Your task to perform on an android device: snooze an email in the gmail app Image 0: 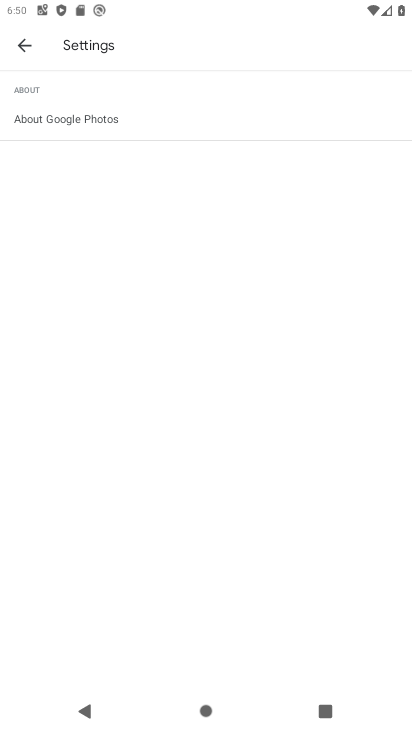
Step 0: press home button
Your task to perform on an android device: snooze an email in the gmail app Image 1: 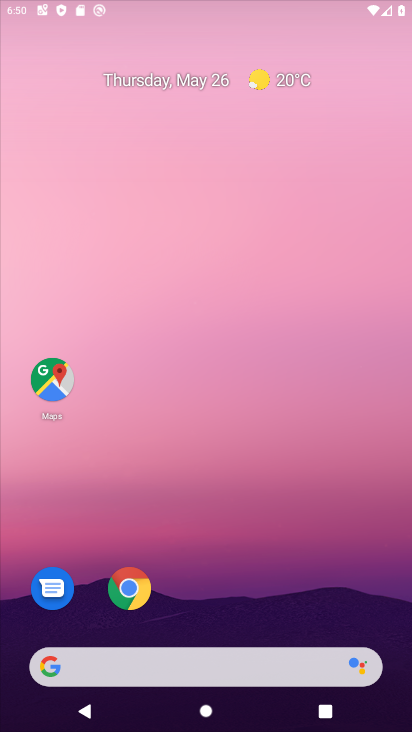
Step 1: drag from (355, 617) to (294, 10)
Your task to perform on an android device: snooze an email in the gmail app Image 2: 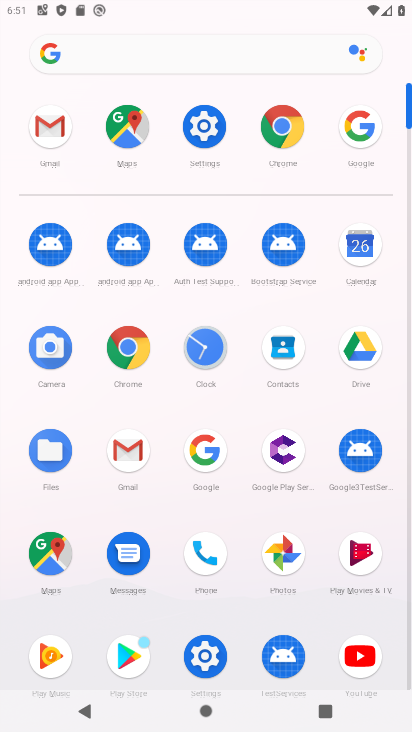
Step 2: click (130, 455)
Your task to perform on an android device: snooze an email in the gmail app Image 3: 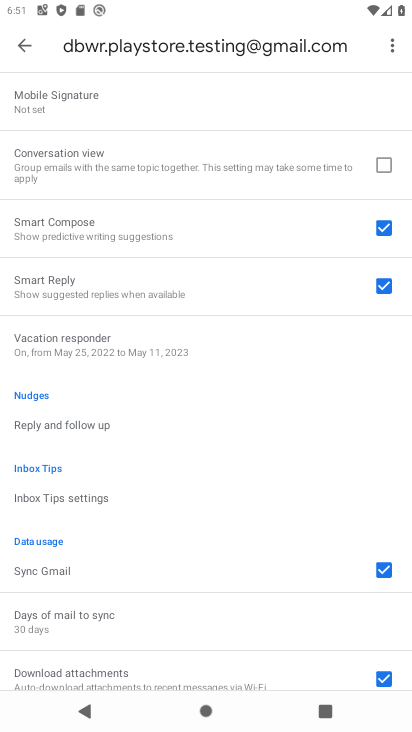
Step 3: press back button
Your task to perform on an android device: snooze an email in the gmail app Image 4: 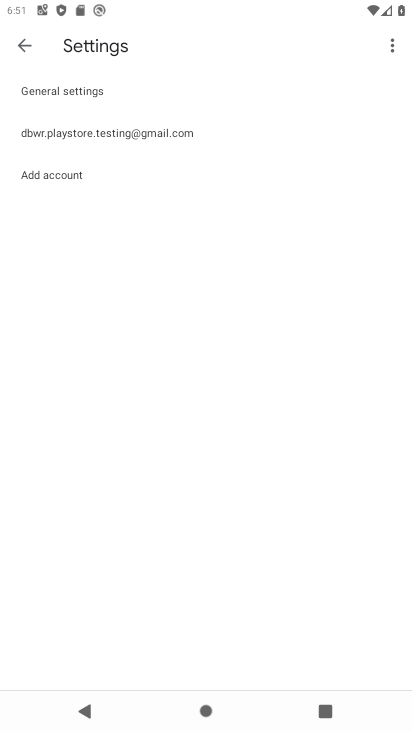
Step 4: press back button
Your task to perform on an android device: snooze an email in the gmail app Image 5: 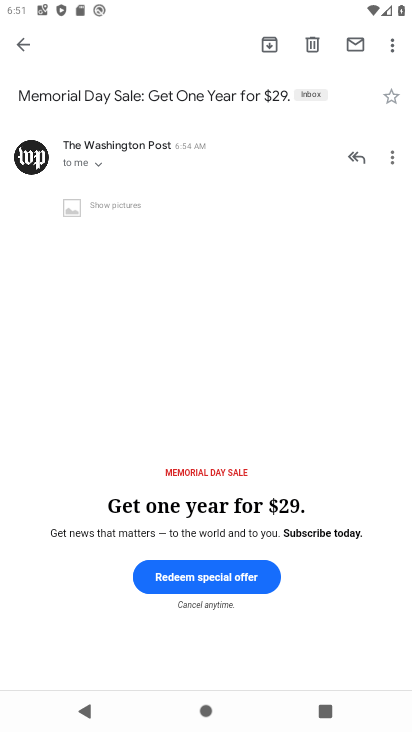
Step 5: click (392, 55)
Your task to perform on an android device: snooze an email in the gmail app Image 6: 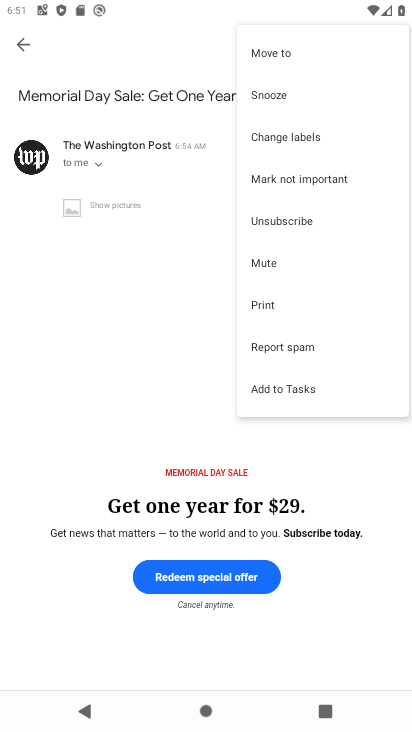
Step 6: click (300, 99)
Your task to perform on an android device: snooze an email in the gmail app Image 7: 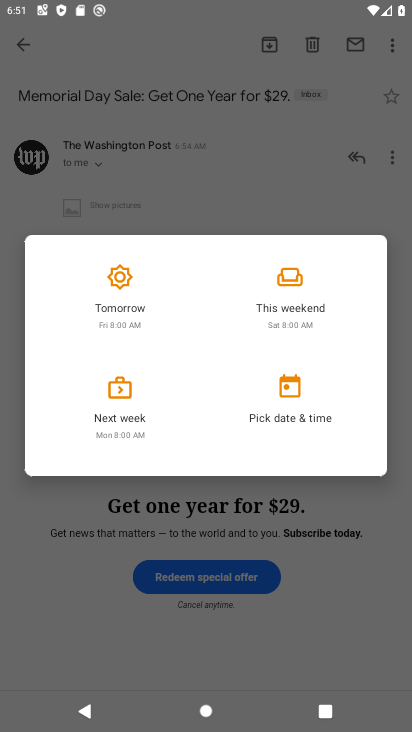
Step 7: click (133, 383)
Your task to perform on an android device: snooze an email in the gmail app Image 8: 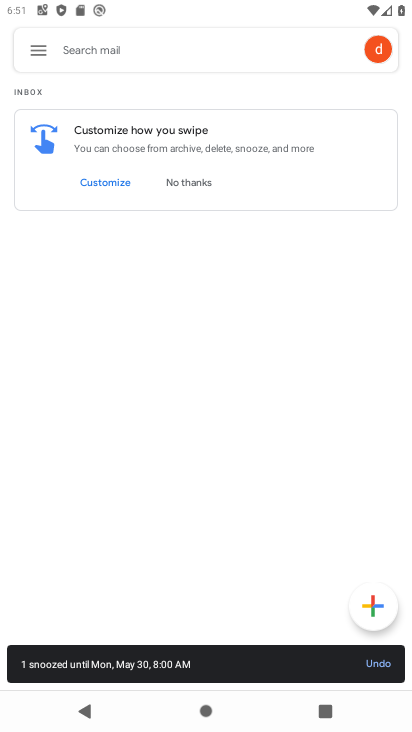
Step 8: task complete